Your task to perform on an android device: delete browsing data in the chrome app Image 0: 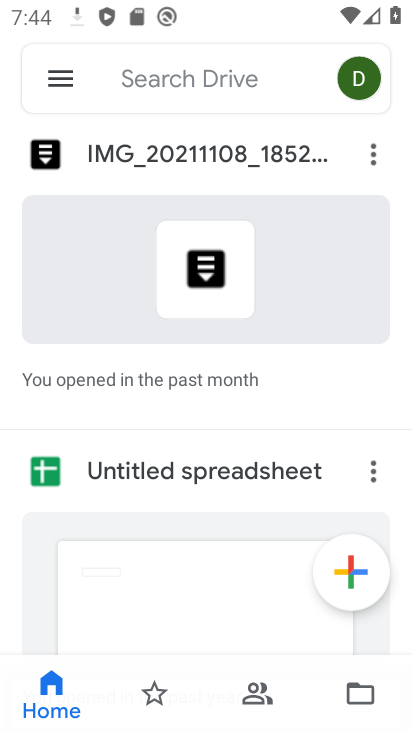
Step 0: press home button
Your task to perform on an android device: delete browsing data in the chrome app Image 1: 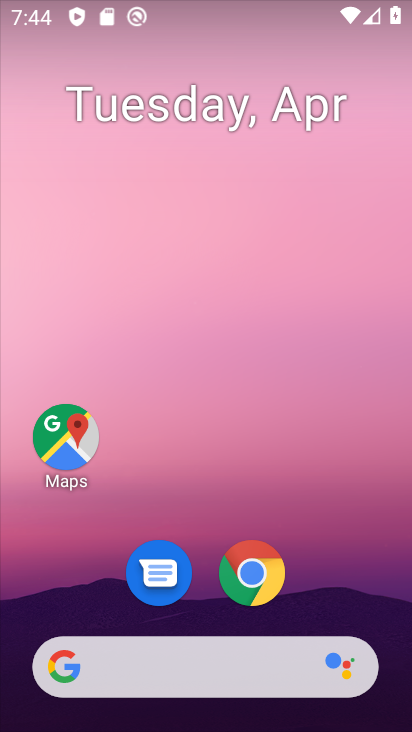
Step 1: click (214, 567)
Your task to perform on an android device: delete browsing data in the chrome app Image 2: 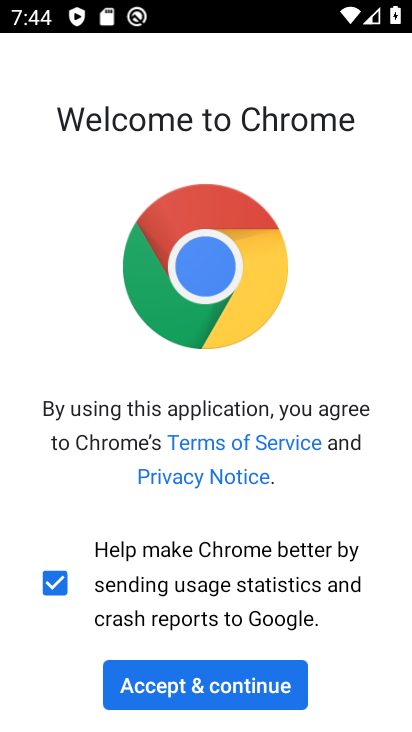
Step 2: click (209, 695)
Your task to perform on an android device: delete browsing data in the chrome app Image 3: 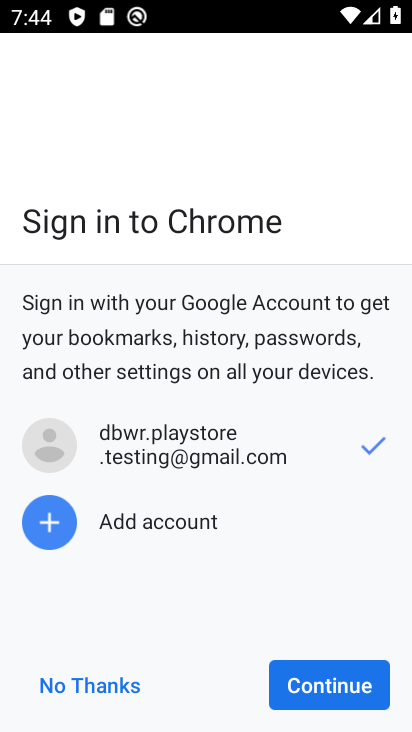
Step 3: click (368, 683)
Your task to perform on an android device: delete browsing data in the chrome app Image 4: 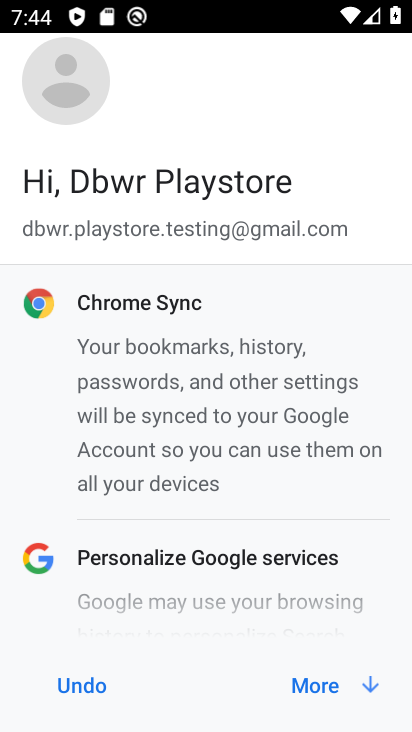
Step 4: click (368, 683)
Your task to perform on an android device: delete browsing data in the chrome app Image 5: 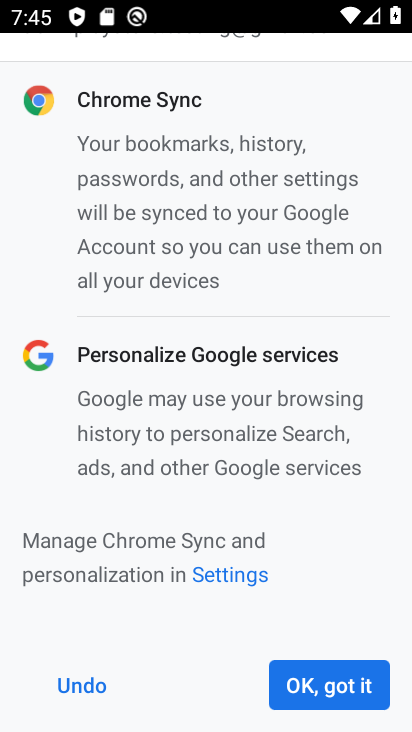
Step 5: click (368, 683)
Your task to perform on an android device: delete browsing data in the chrome app Image 6: 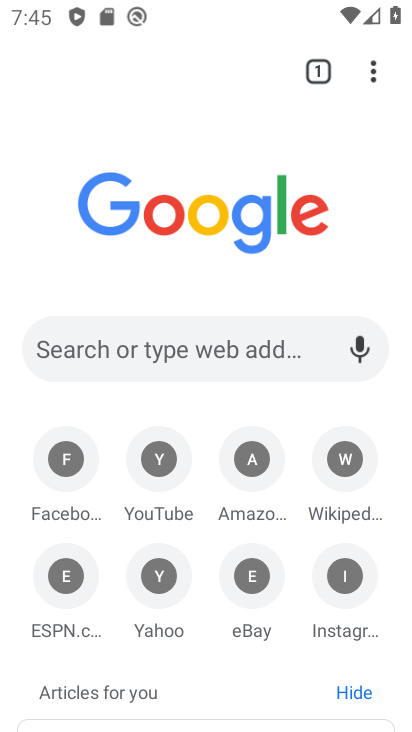
Step 6: click (370, 75)
Your task to perform on an android device: delete browsing data in the chrome app Image 7: 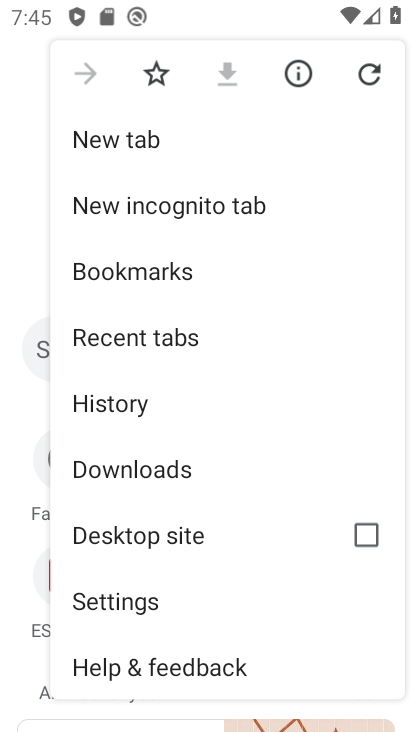
Step 7: click (120, 403)
Your task to perform on an android device: delete browsing data in the chrome app Image 8: 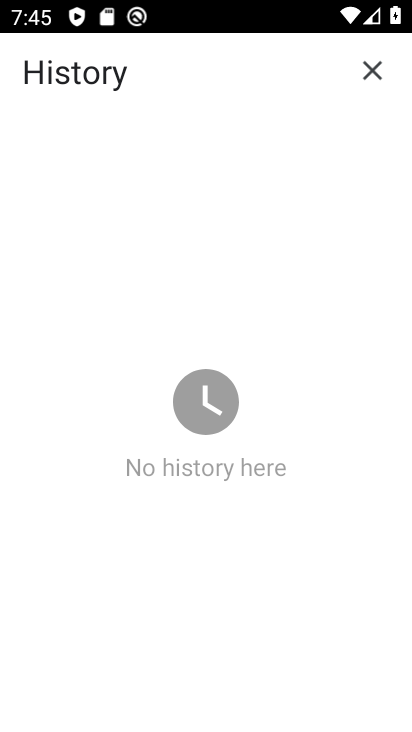
Step 8: task complete